Your task to perform on an android device: Is it going to rain tomorrow? Image 0: 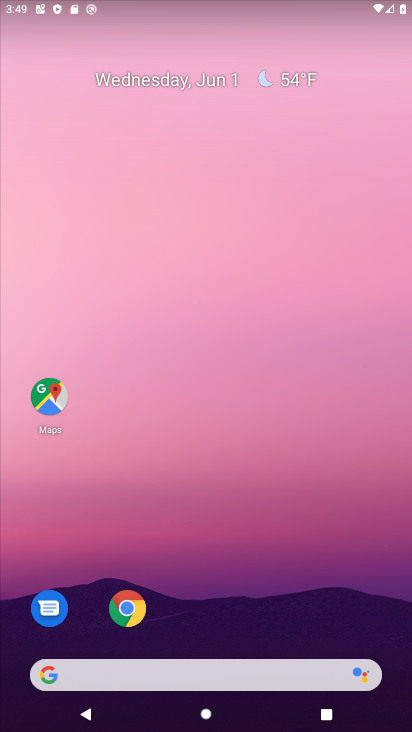
Step 0: click (268, 681)
Your task to perform on an android device: Is it going to rain tomorrow? Image 1: 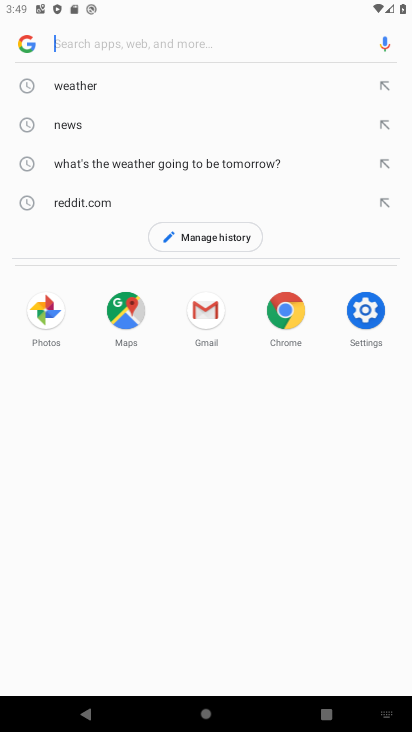
Step 1: click (173, 167)
Your task to perform on an android device: Is it going to rain tomorrow? Image 2: 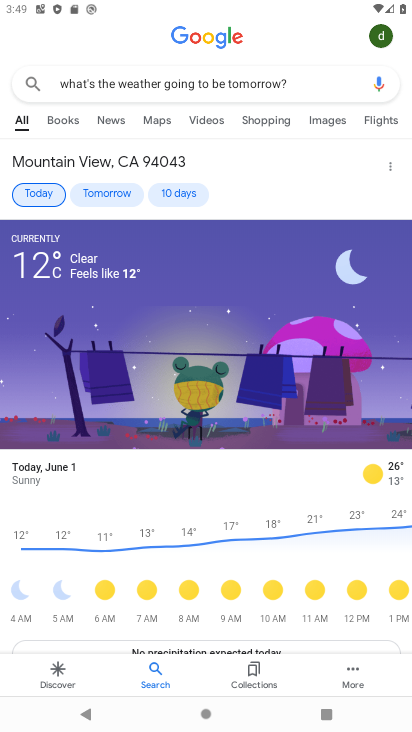
Step 2: task complete